Your task to perform on an android device: turn smart compose on in the gmail app Image 0: 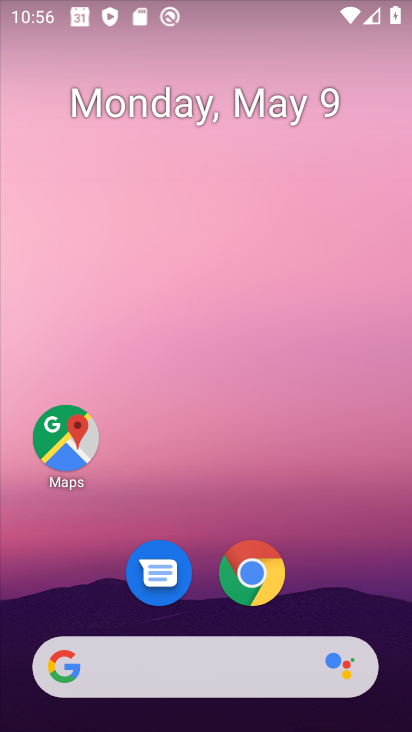
Step 0: click (265, 284)
Your task to perform on an android device: turn smart compose on in the gmail app Image 1: 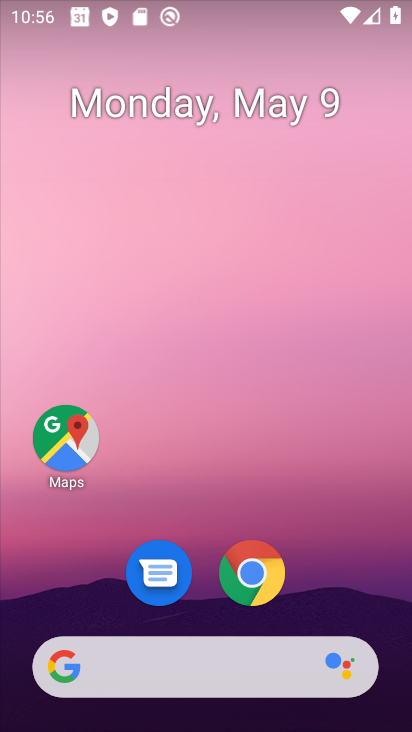
Step 1: drag from (217, 609) to (246, 245)
Your task to perform on an android device: turn smart compose on in the gmail app Image 2: 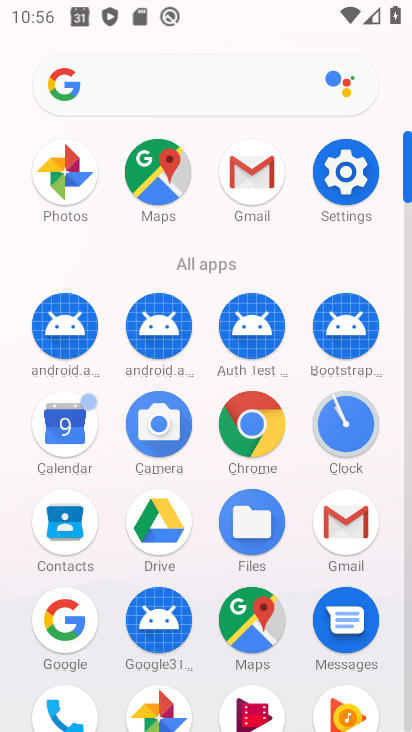
Step 2: click (348, 516)
Your task to perform on an android device: turn smart compose on in the gmail app Image 3: 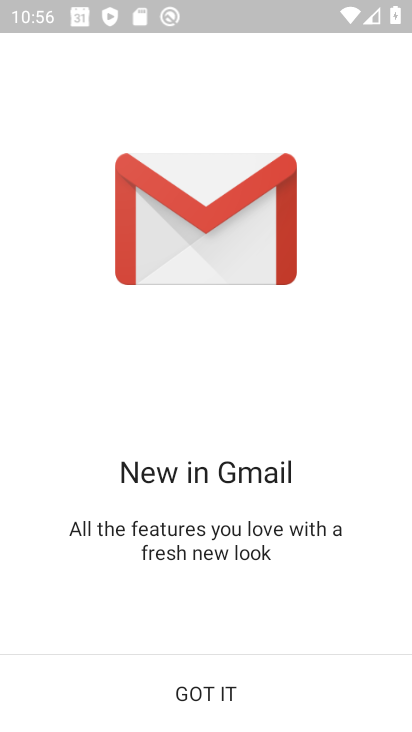
Step 3: click (223, 681)
Your task to perform on an android device: turn smart compose on in the gmail app Image 4: 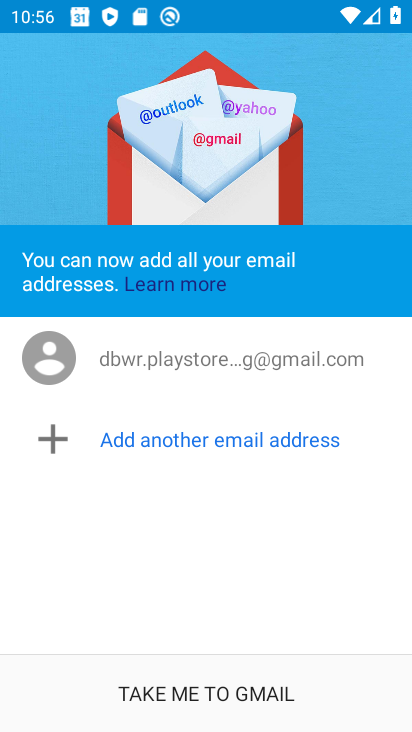
Step 4: click (195, 706)
Your task to perform on an android device: turn smart compose on in the gmail app Image 5: 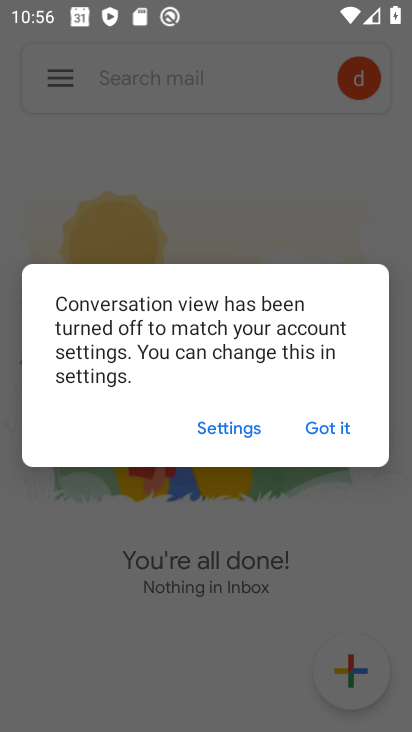
Step 5: click (325, 435)
Your task to perform on an android device: turn smart compose on in the gmail app Image 6: 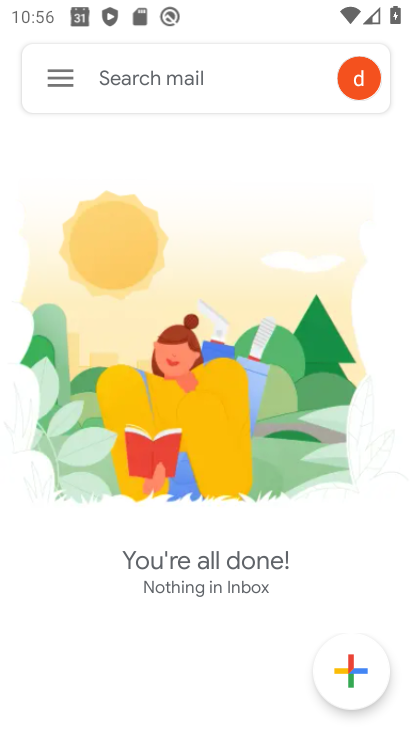
Step 6: click (61, 85)
Your task to perform on an android device: turn smart compose on in the gmail app Image 7: 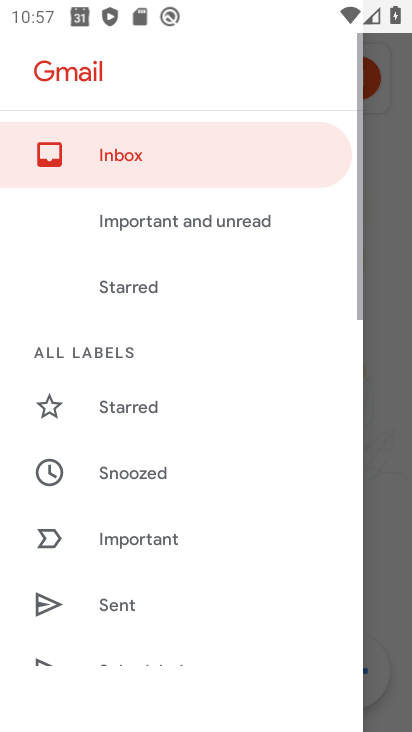
Step 7: drag from (144, 622) to (205, 109)
Your task to perform on an android device: turn smart compose on in the gmail app Image 8: 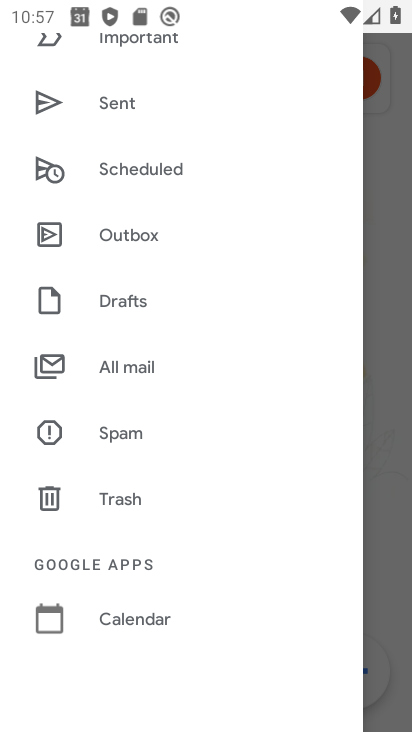
Step 8: drag from (163, 587) to (211, 207)
Your task to perform on an android device: turn smart compose on in the gmail app Image 9: 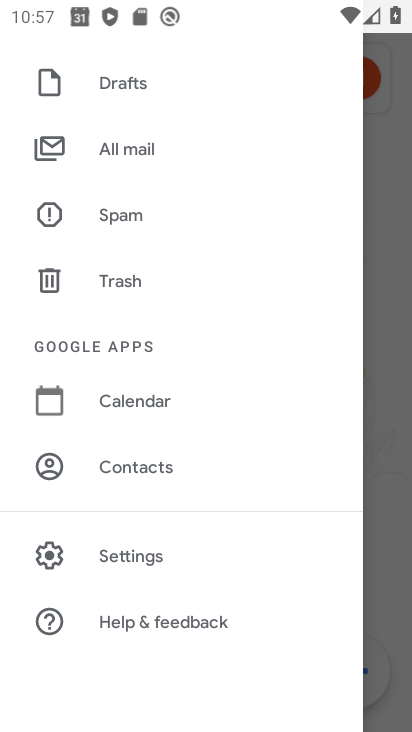
Step 9: click (138, 516)
Your task to perform on an android device: turn smart compose on in the gmail app Image 10: 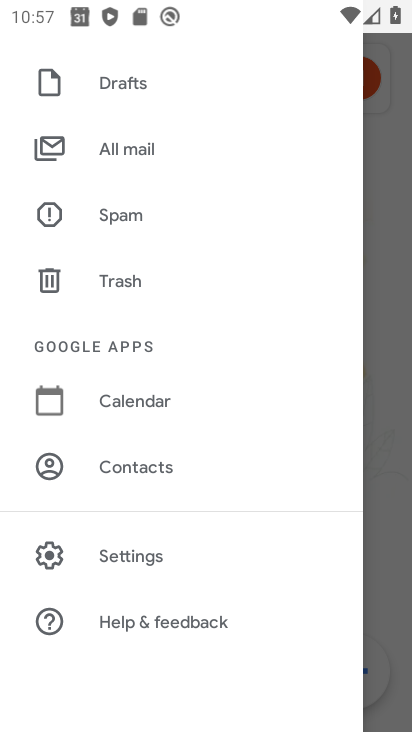
Step 10: click (113, 559)
Your task to perform on an android device: turn smart compose on in the gmail app Image 11: 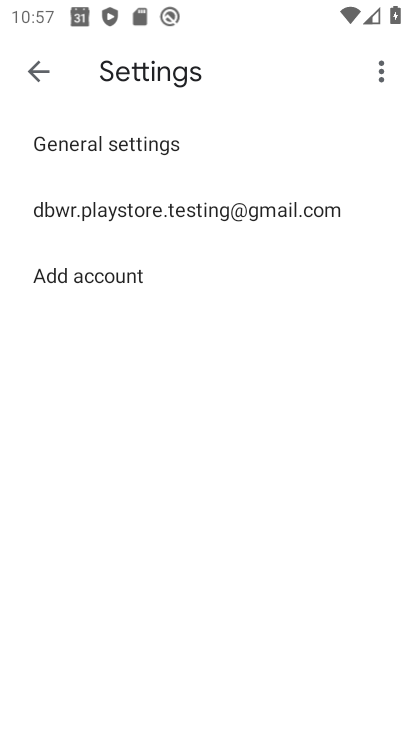
Step 11: click (237, 212)
Your task to perform on an android device: turn smart compose on in the gmail app Image 12: 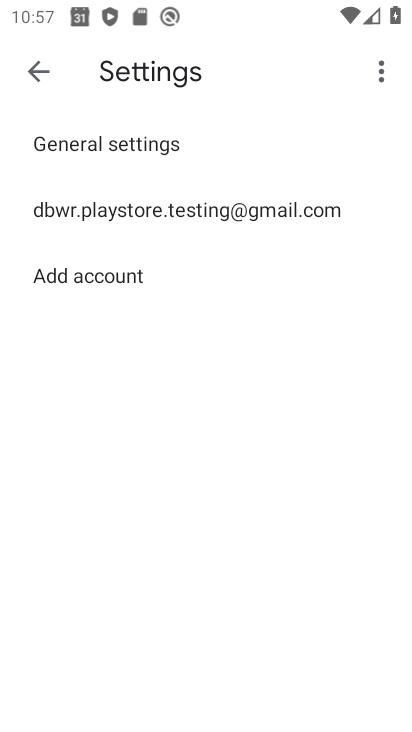
Step 12: click (236, 211)
Your task to perform on an android device: turn smart compose on in the gmail app Image 13: 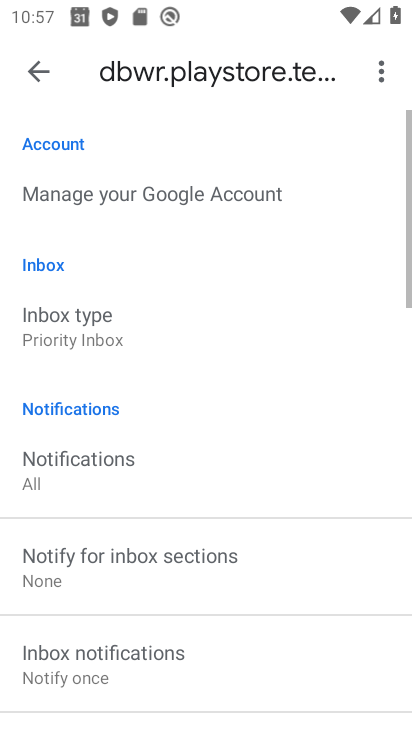
Step 13: task complete